Your task to perform on an android device: see creations saved in the google photos Image 0: 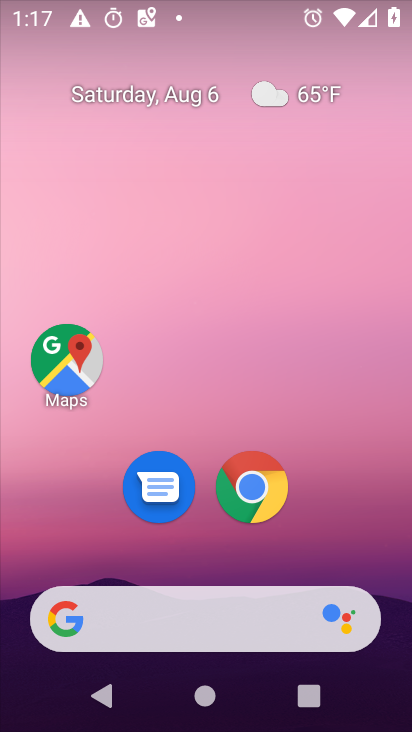
Step 0: drag from (188, 554) to (260, 1)
Your task to perform on an android device: see creations saved in the google photos Image 1: 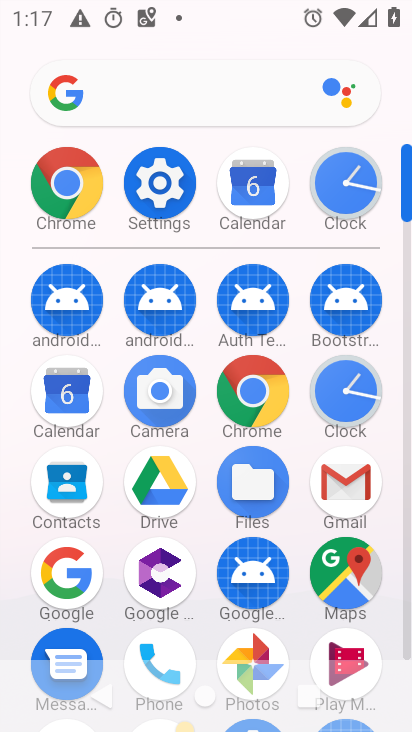
Step 1: click (258, 644)
Your task to perform on an android device: see creations saved in the google photos Image 2: 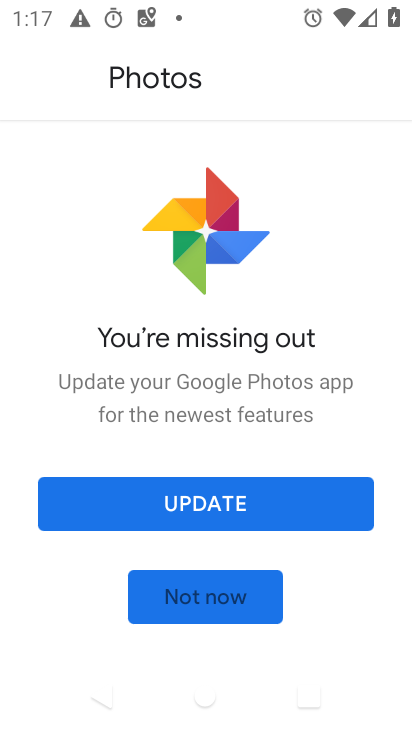
Step 2: click (196, 588)
Your task to perform on an android device: see creations saved in the google photos Image 3: 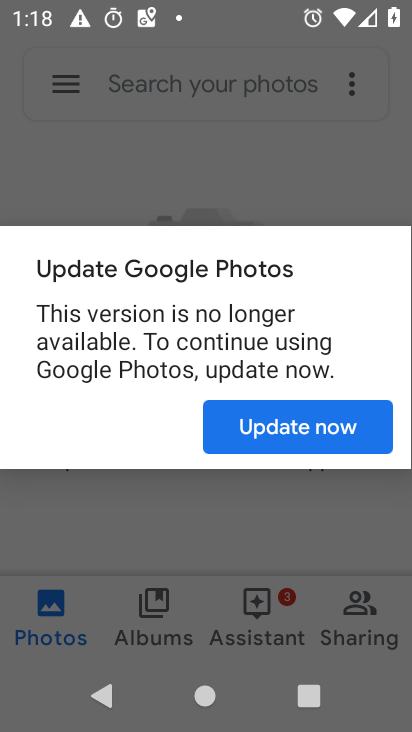
Step 3: click (316, 417)
Your task to perform on an android device: see creations saved in the google photos Image 4: 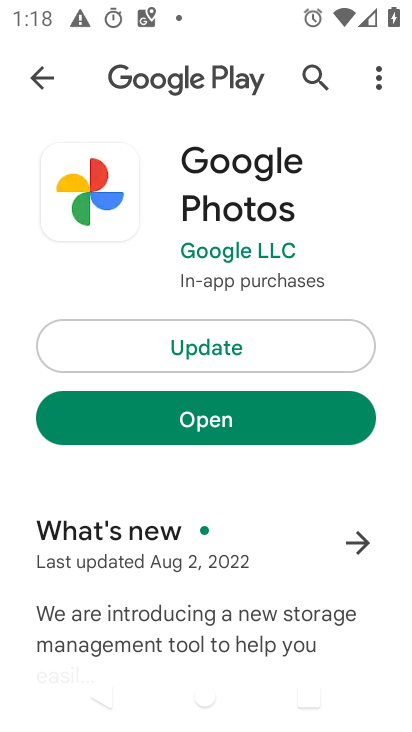
Step 4: click (285, 423)
Your task to perform on an android device: see creations saved in the google photos Image 5: 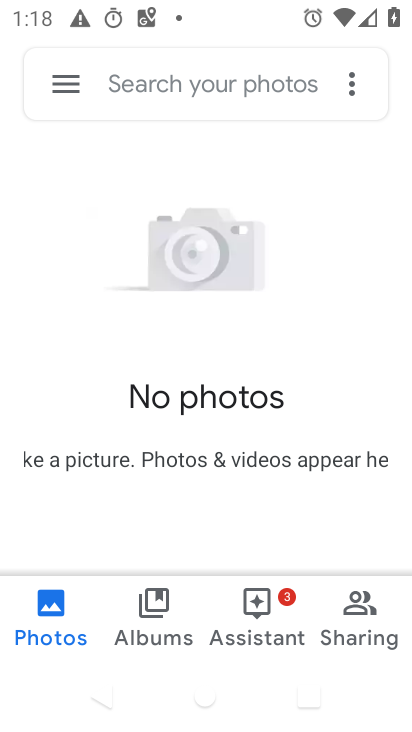
Step 5: click (59, 75)
Your task to perform on an android device: see creations saved in the google photos Image 6: 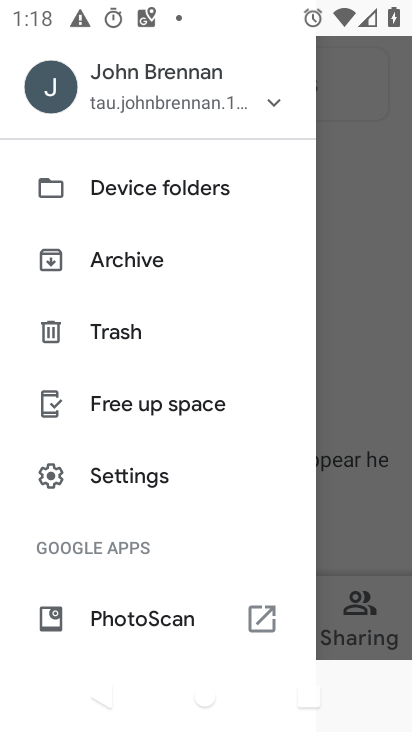
Step 6: click (158, 239)
Your task to perform on an android device: see creations saved in the google photos Image 7: 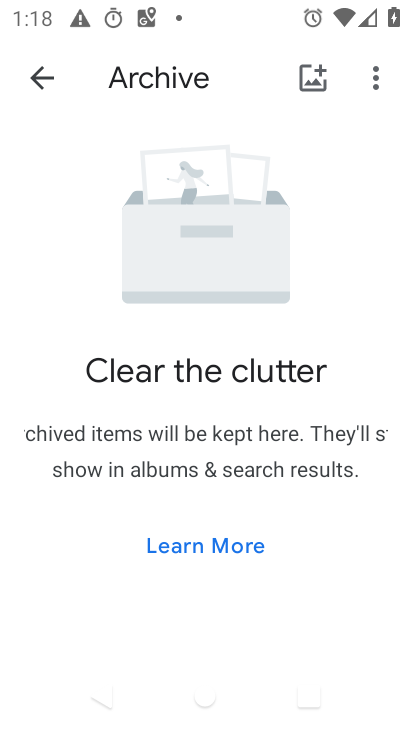
Step 7: task complete